Your task to perform on an android device: Open the web browser Image 0: 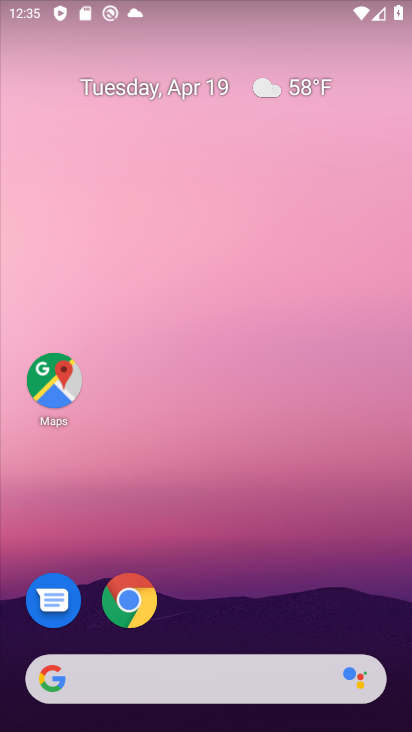
Step 0: drag from (294, 528) to (240, 210)
Your task to perform on an android device: Open the web browser Image 1: 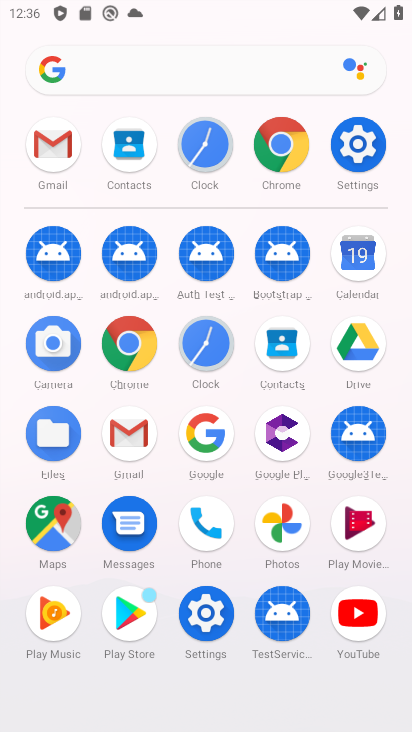
Step 1: click (286, 165)
Your task to perform on an android device: Open the web browser Image 2: 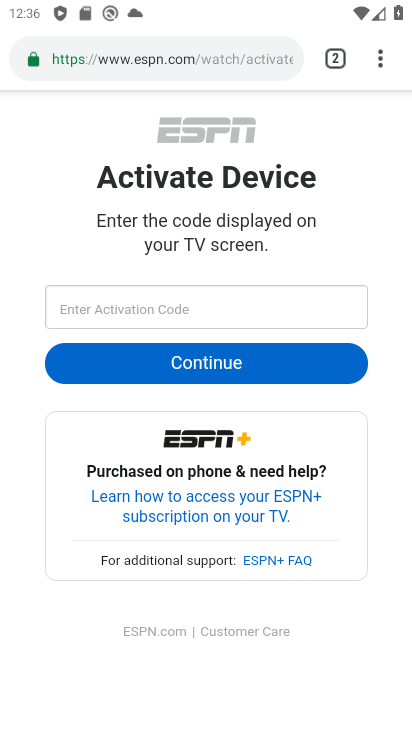
Step 2: task complete